Your task to perform on an android device: What is the recent news? Image 0: 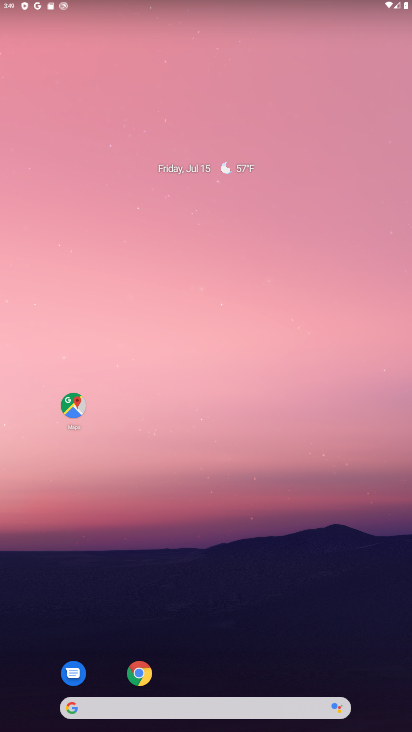
Step 0: drag from (204, 557) to (207, 14)
Your task to perform on an android device: What is the recent news? Image 1: 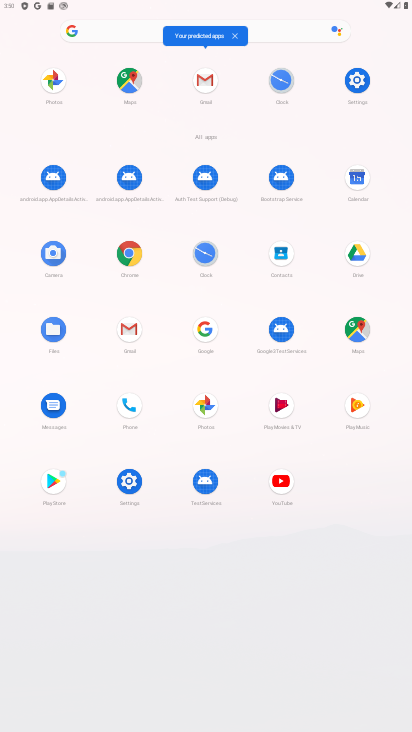
Step 1: click (99, 29)
Your task to perform on an android device: What is the recent news? Image 2: 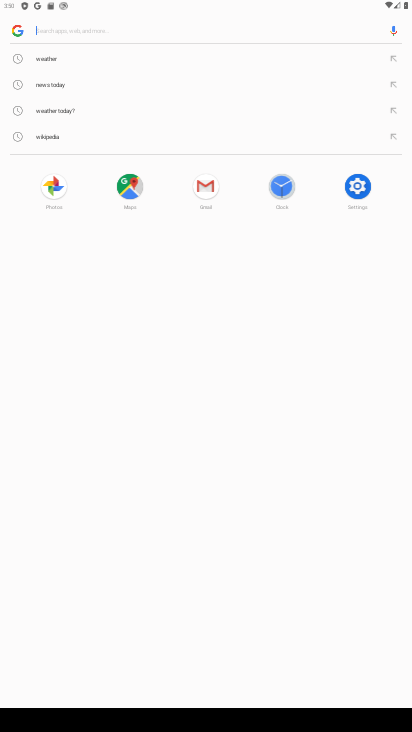
Step 2: type "recent news"
Your task to perform on an android device: What is the recent news? Image 3: 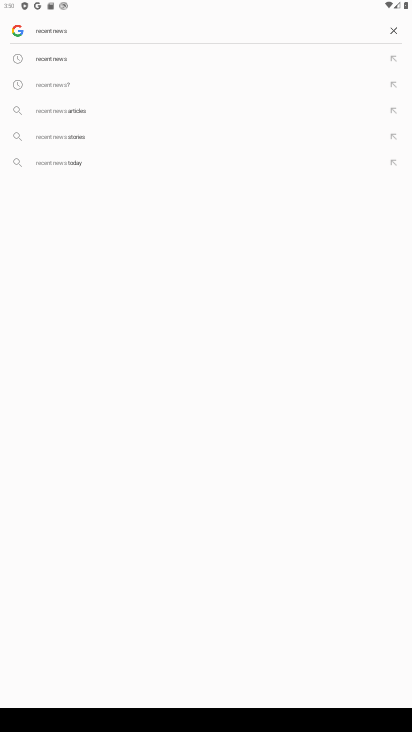
Step 3: click (46, 60)
Your task to perform on an android device: What is the recent news? Image 4: 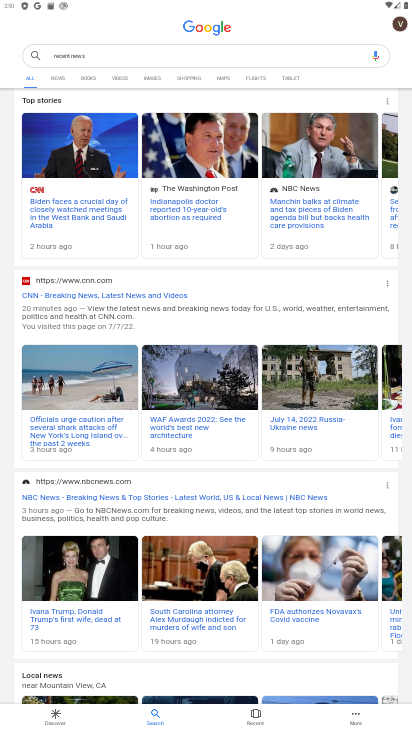
Step 4: task complete